Your task to perform on an android device: toggle notifications settings in the gmail app Image 0: 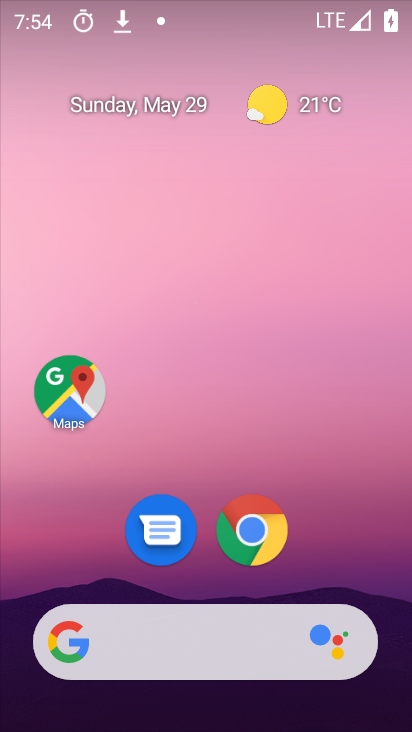
Step 0: drag from (233, 694) to (116, 64)
Your task to perform on an android device: toggle notifications settings in the gmail app Image 1: 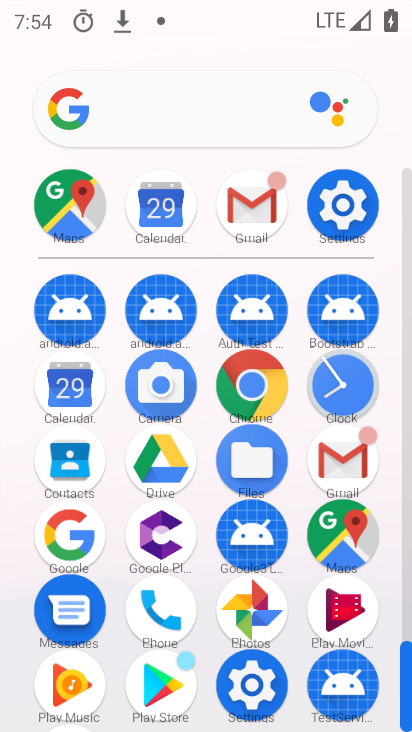
Step 1: click (259, 215)
Your task to perform on an android device: toggle notifications settings in the gmail app Image 2: 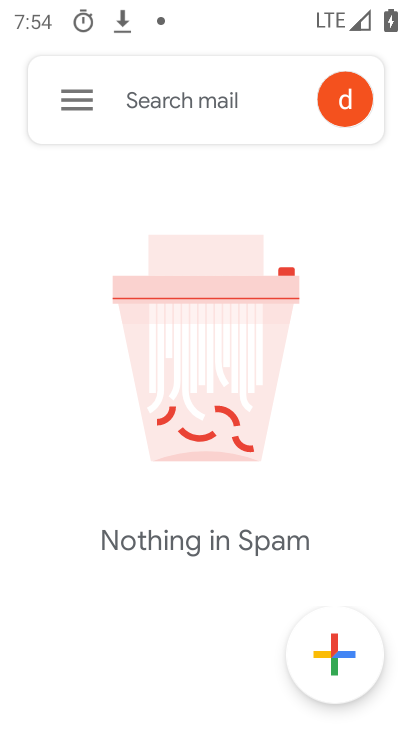
Step 2: click (49, 102)
Your task to perform on an android device: toggle notifications settings in the gmail app Image 3: 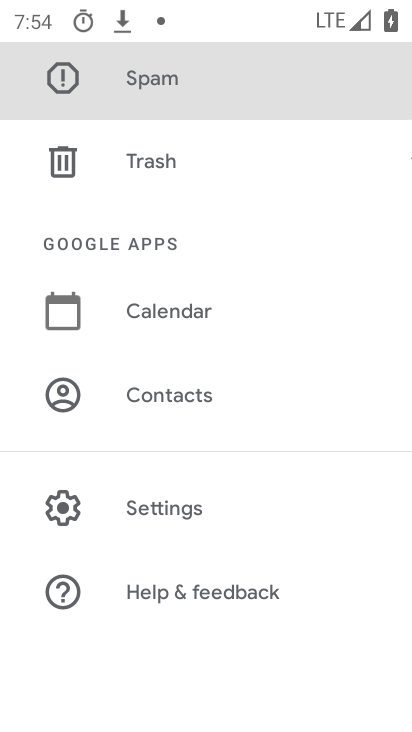
Step 3: click (149, 502)
Your task to perform on an android device: toggle notifications settings in the gmail app Image 4: 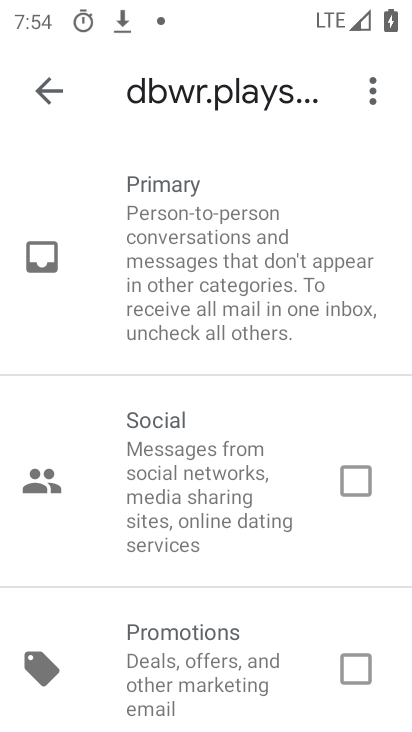
Step 4: click (44, 89)
Your task to perform on an android device: toggle notifications settings in the gmail app Image 5: 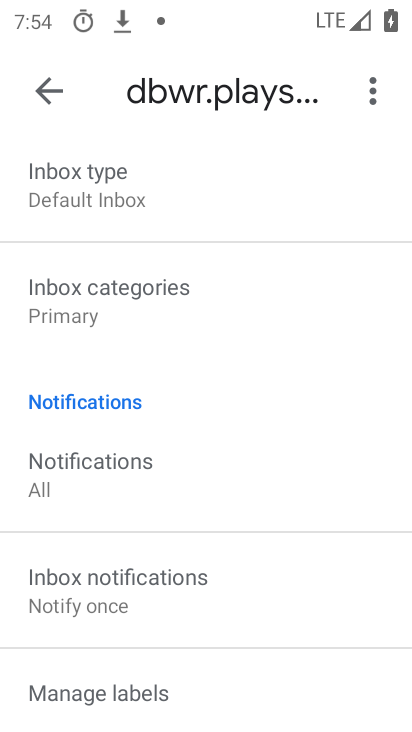
Step 5: click (131, 410)
Your task to perform on an android device: toggle notifications settings in the gmail app Image 6: 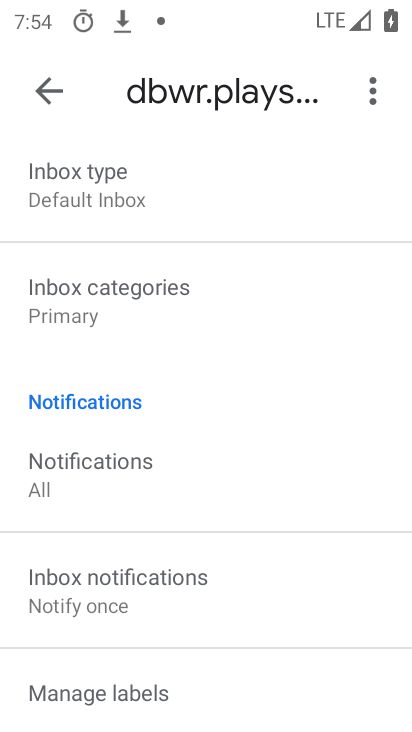
Step 6: click (123, 465)
Your task to perform on an android device: toggle notifications settings in the gmail app Image 7: 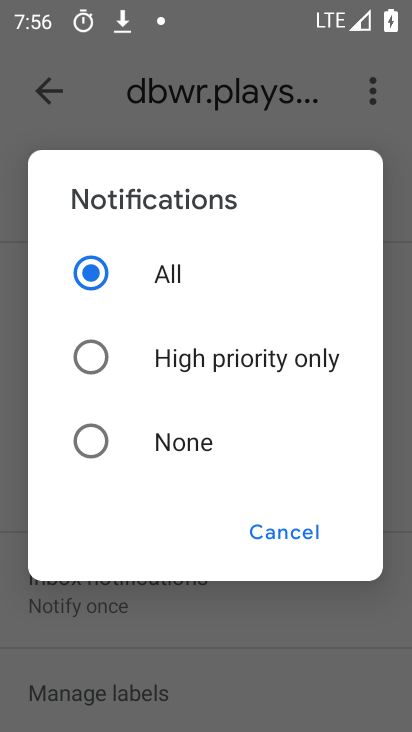
Step 7: task complete